Your task to perform on an android device: find which apps use the phone's location Image 0: 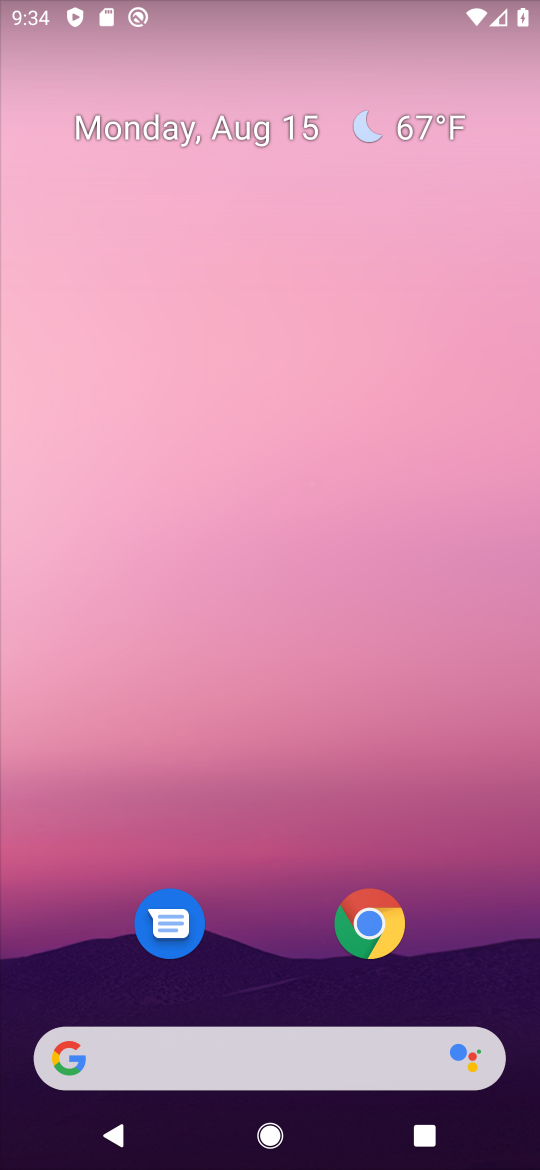
Step 0: drag from (268, 321) to (335, 138)
Your task to perform on an android device: find which apps use the phone's location Image 1: 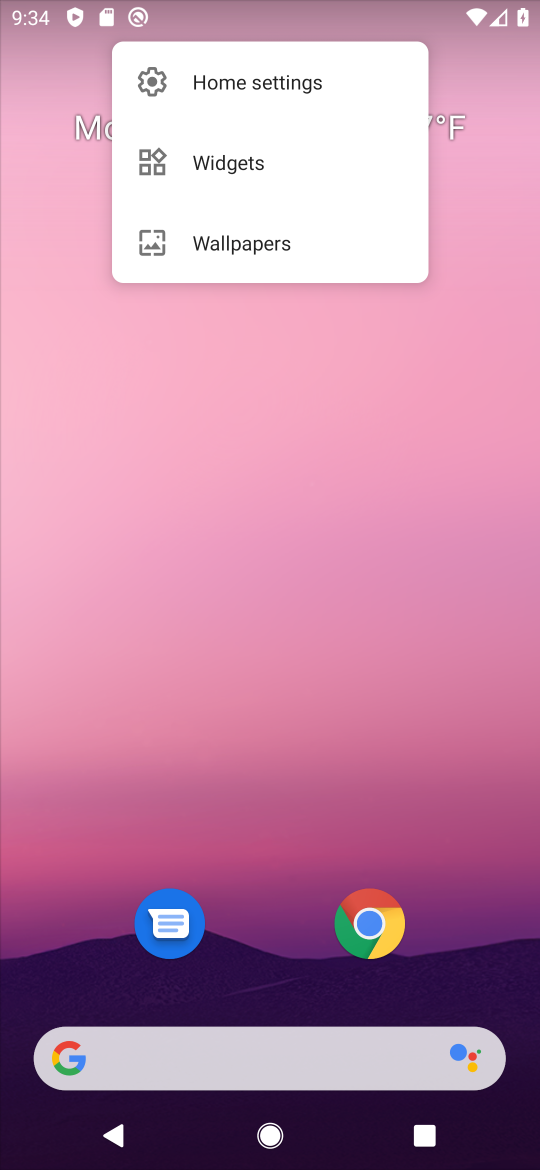
Step 1: drag from (176, 737) to (521, 226)
Your task to perform on an android device: find which apps use the phone's location Image 2: 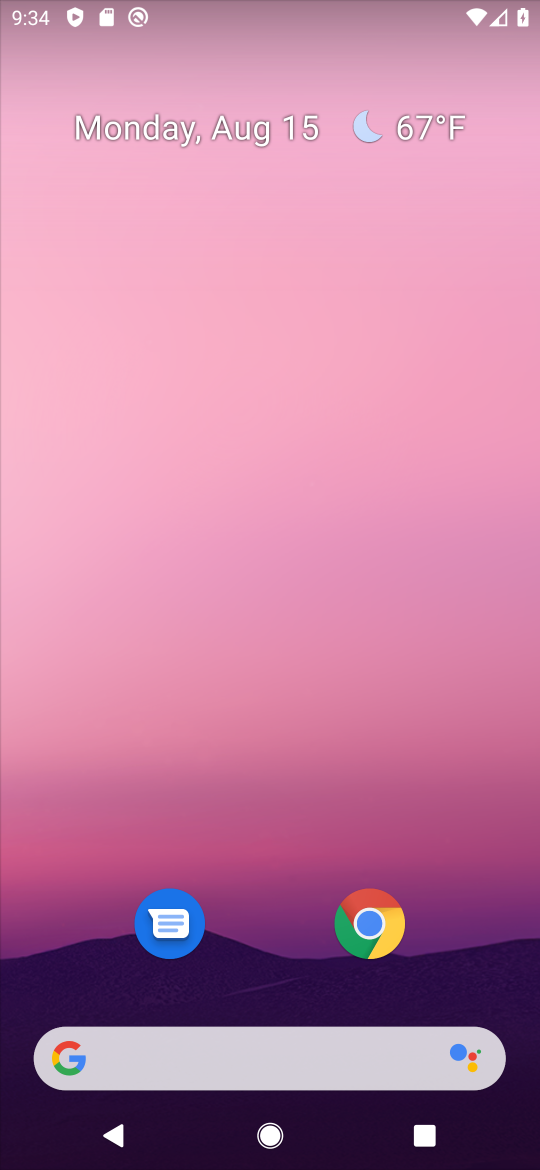
Step 2: drag from (44, 674) to (241, 138)
Your task to perform on an android device: find which apps use the phone's location Image 3: 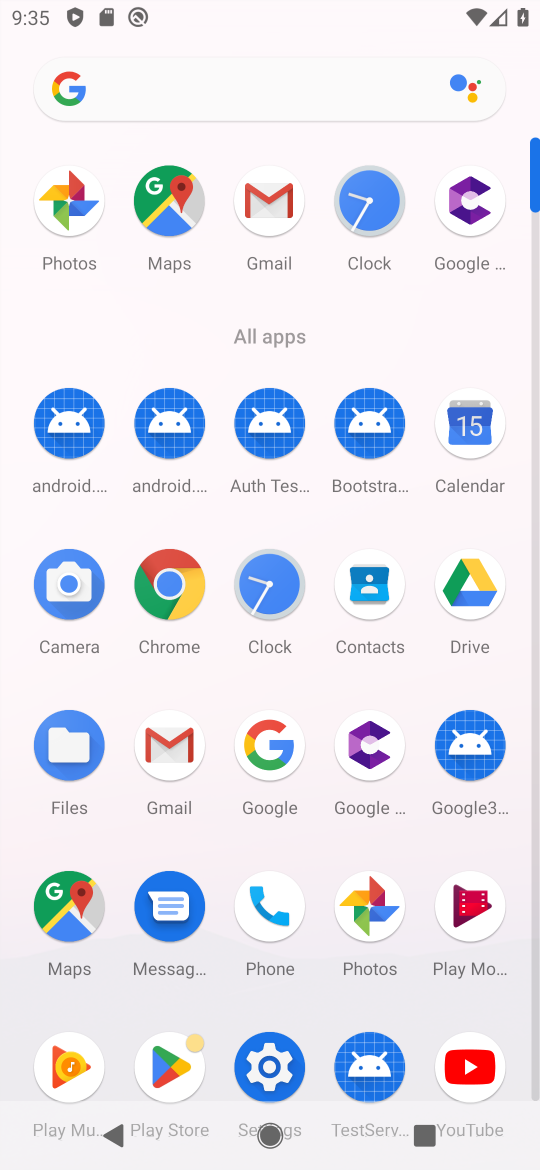
Step 3: click (243, 1074)
Your task to perform on an android device: find which apps use the phone's location Image 4: 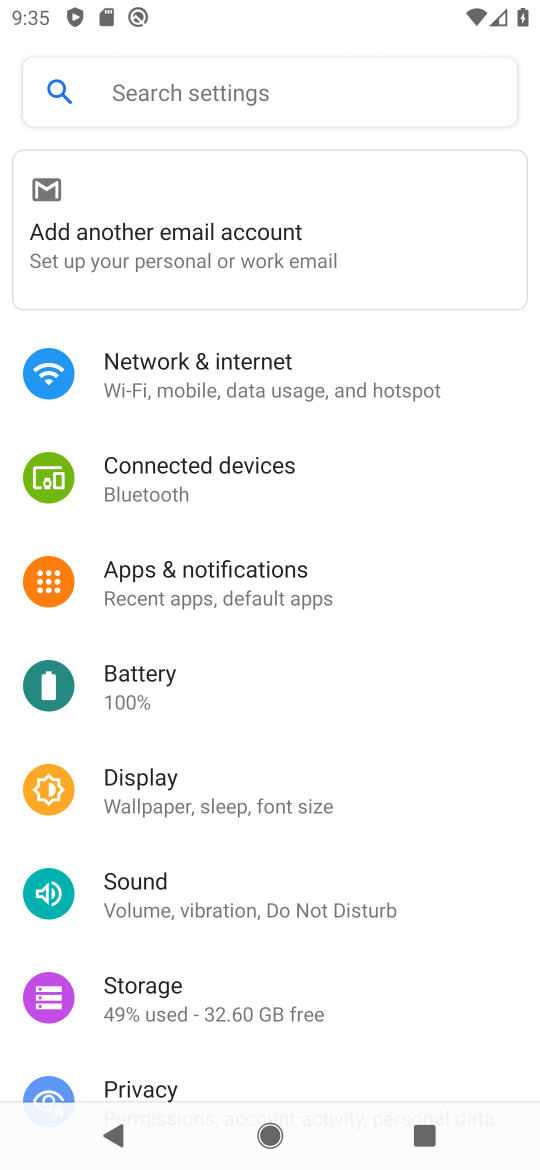
Step 4: drag from (43, 867) to (339, 247)
Your task to perform on an android device: find which apps use the phone's location Image 5: 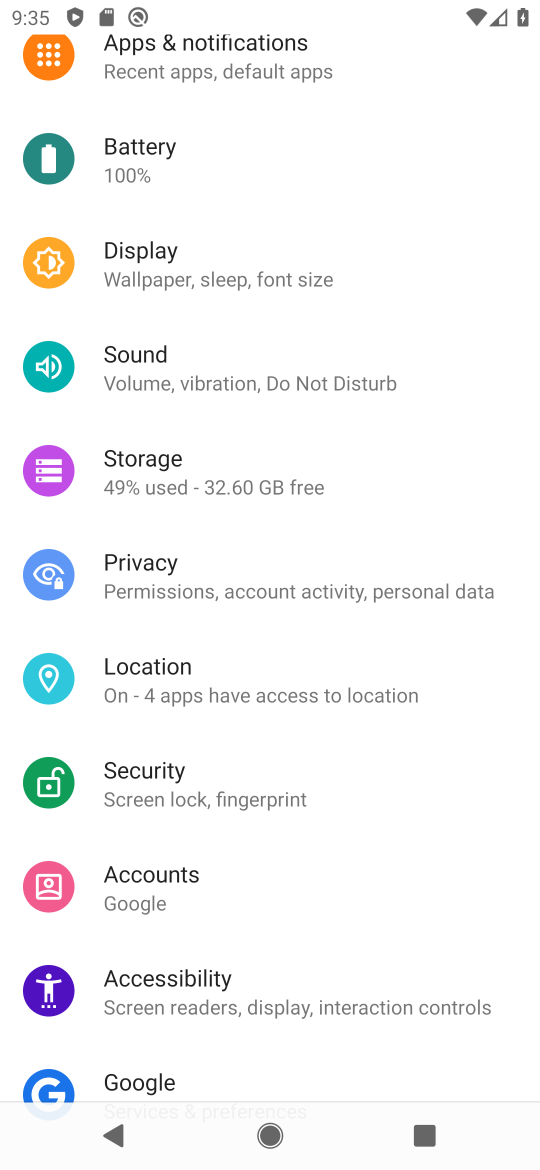
Step 5: click (235, 679)
Your task to perform on an android device: find which apps use the phone's location Image 6: 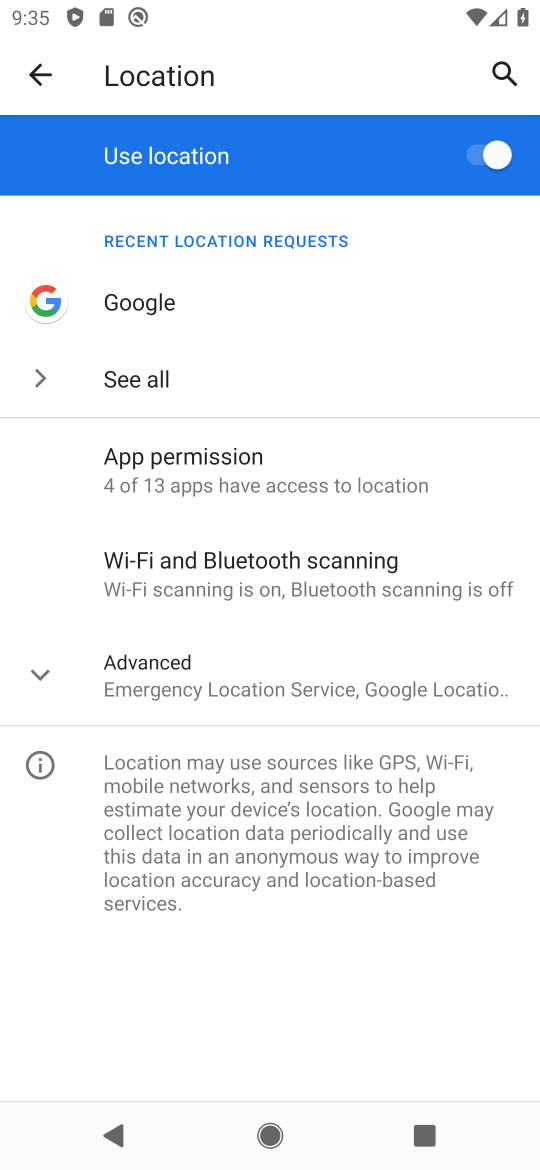
Step 6: click (268, 486)
Your task to perform on an android device: find which apps use the phone's location Image 7: 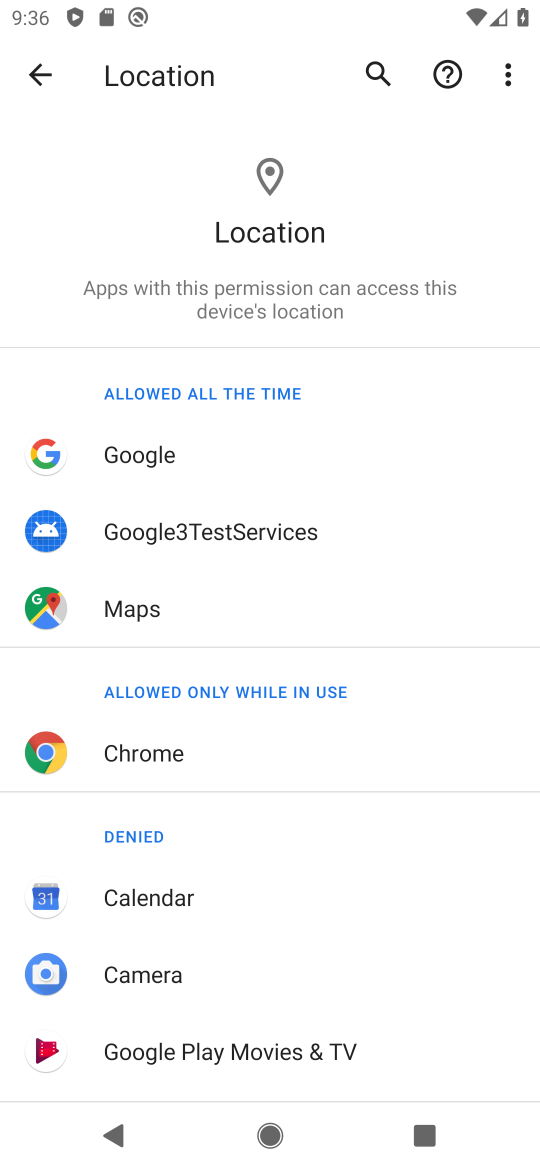
Step 7: task complete